Your task to perform on an android device: turn on airplane mode Image 0: 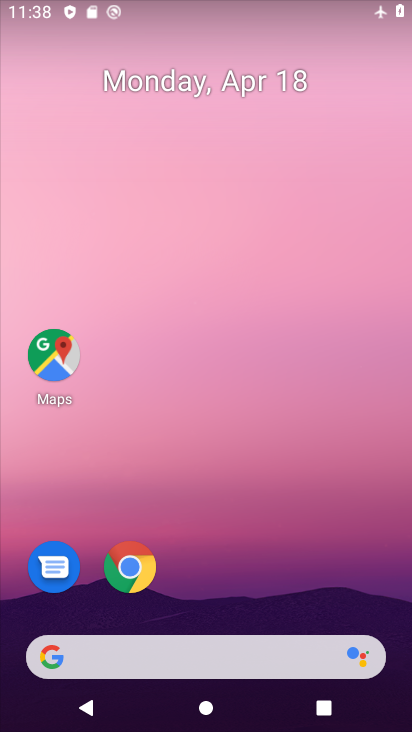
Step 0: drag from (374, 595) to (338, 32)
Your task to perform on an android device: turn on airplane mode Image 1: 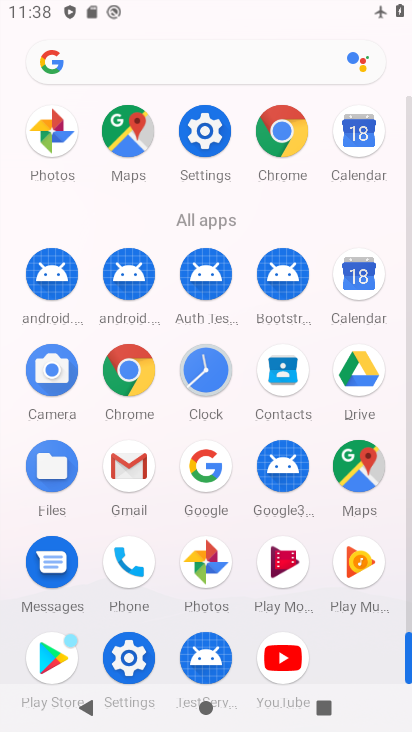
Step 1: click (124, 658)
Your task to perform on an android device: turn on airplane mode Image 2: 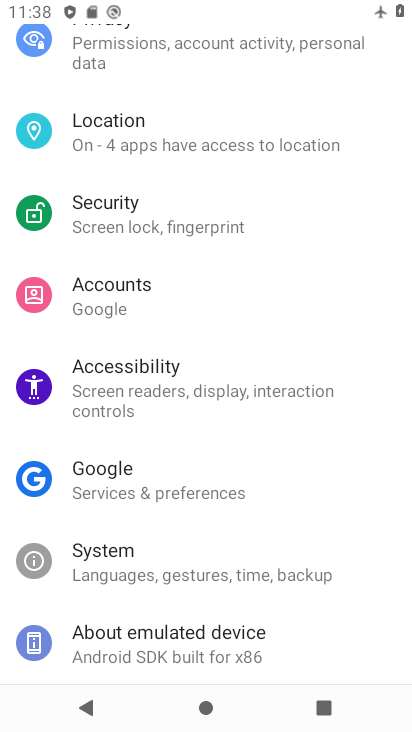
Step 2: drag from (368, 117) to (361, 451)
Your task to perform on an android device: turn on airplane mode Image 3: 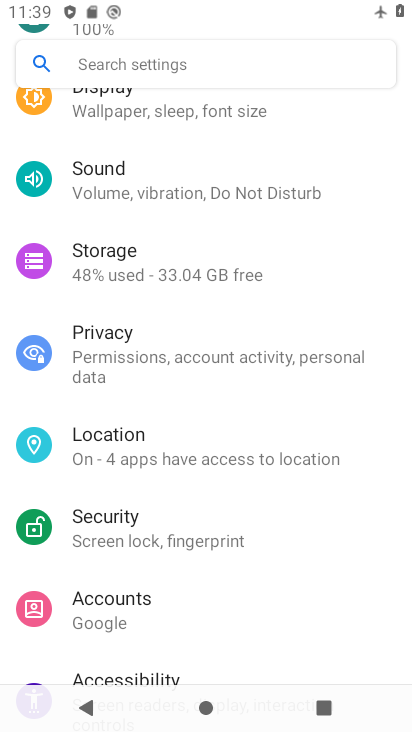
Step 3: drag from (357, 163) to (395, 490)
Your task to perform on an android device: turn on airplane mode Image 4: 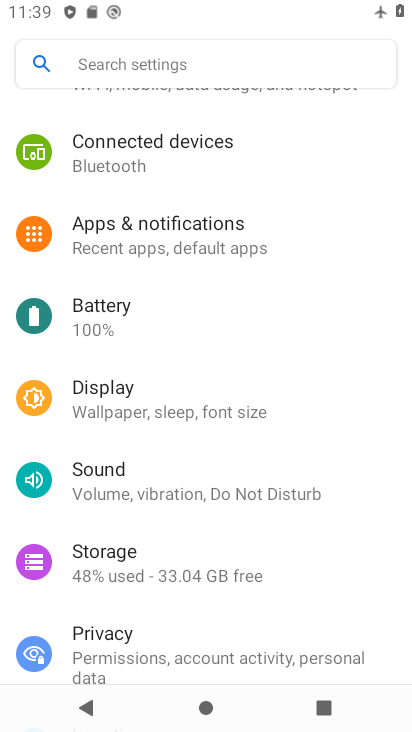
Step 4: drag from (371, 120) to (395, 465)
Your task to perform on an android device: turn on airplane mode Image 5: 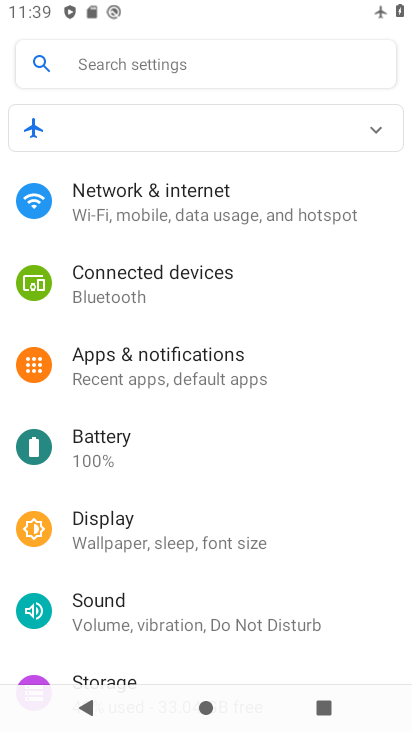
Step 5: click (129, 198)
Your task to perform on an android device: turn on airplane mode Image 6: 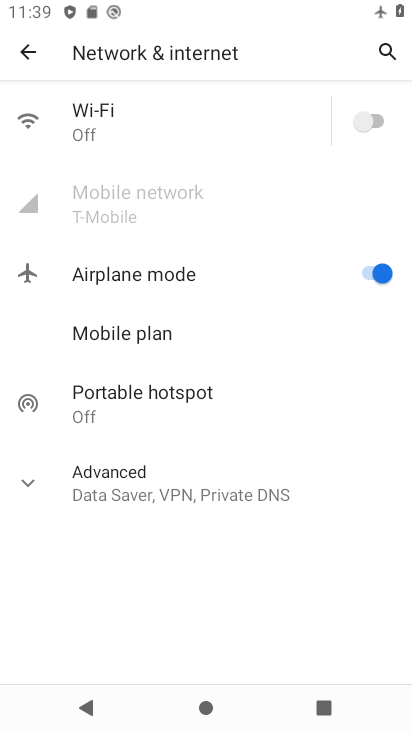
Step 6: task complete